Your task to perform on an android device: open chrome and create a bookmark for the current page Image 0: 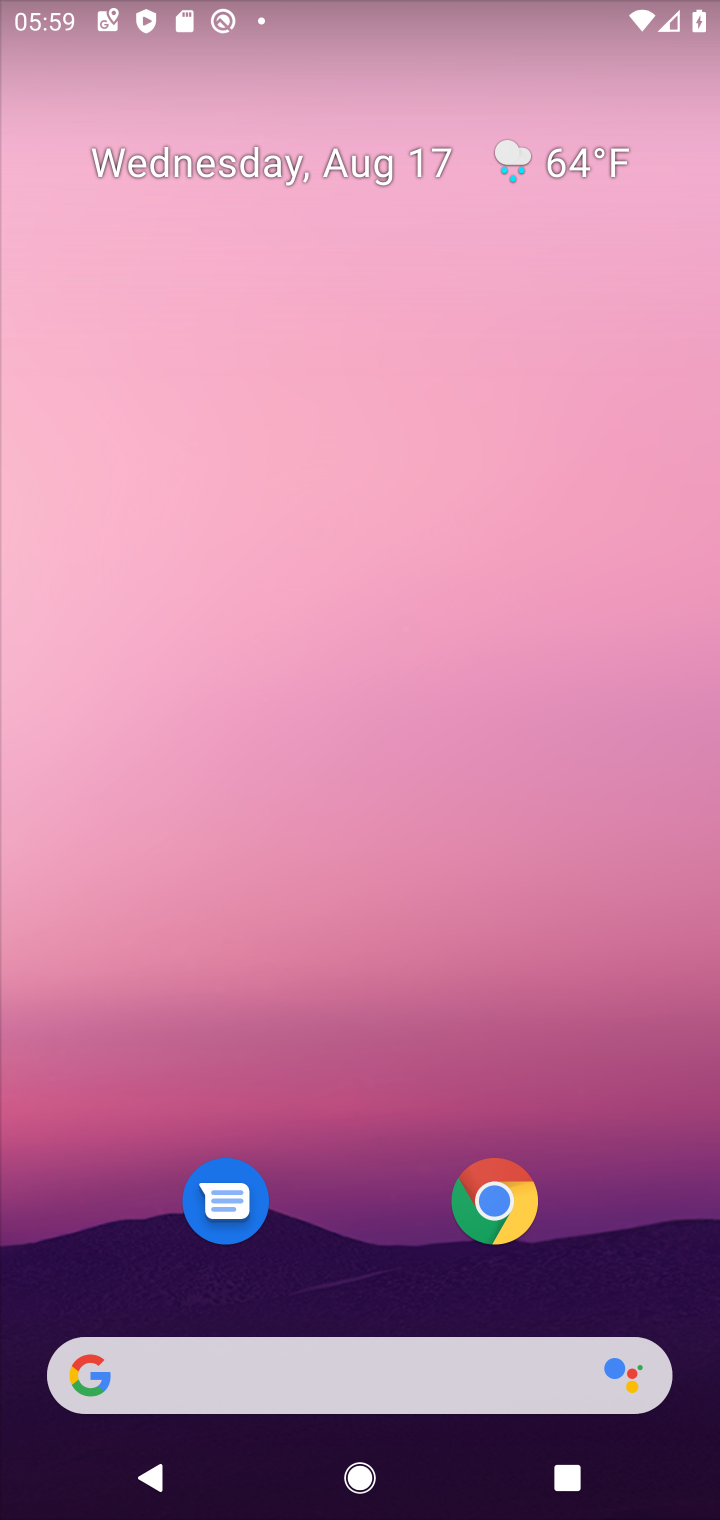
Step 0: press home button
Your task to perform on an android device: open chrome and create a bookmark for the current page Image 1: 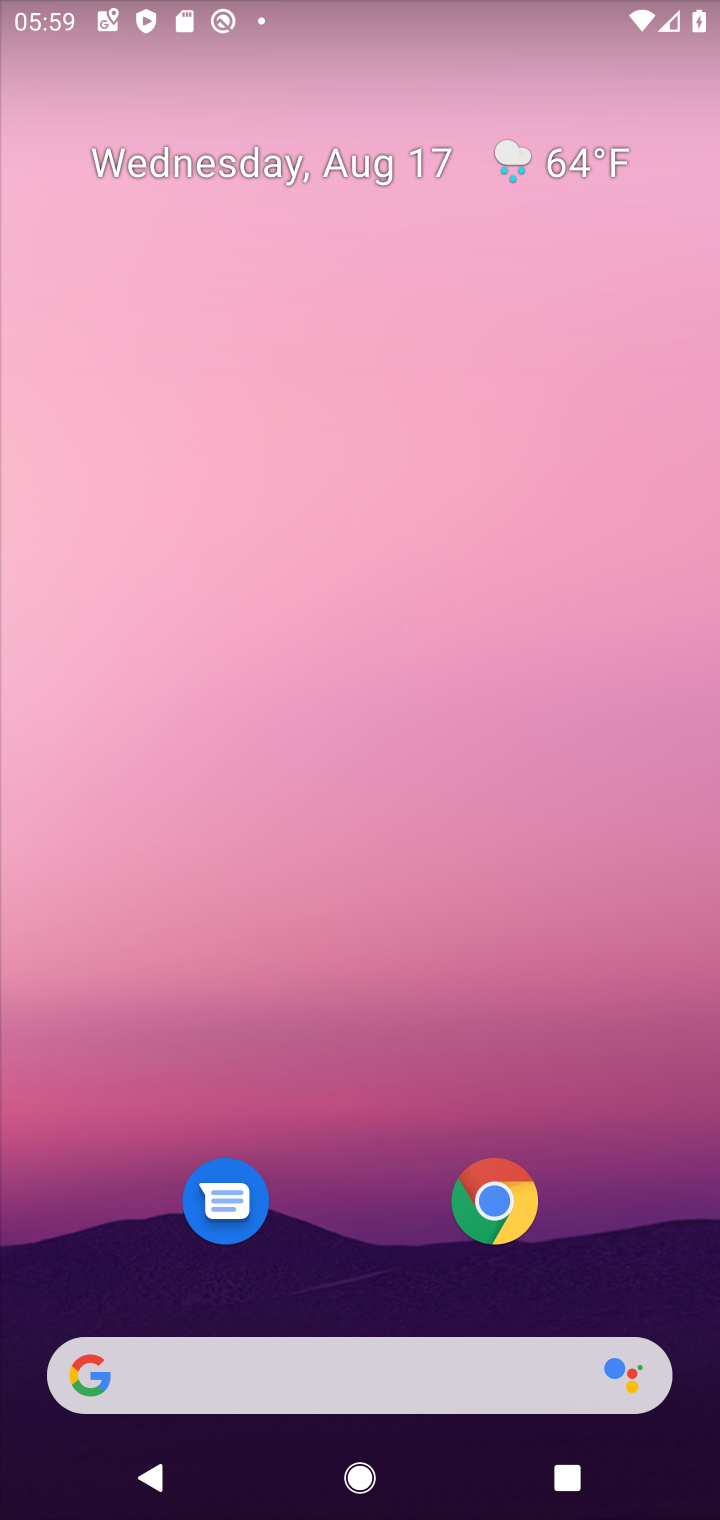
Step 1: click (505, 1219)
Your task to perform on an android device: open chrome and create a bookmark for the current page Image 2: 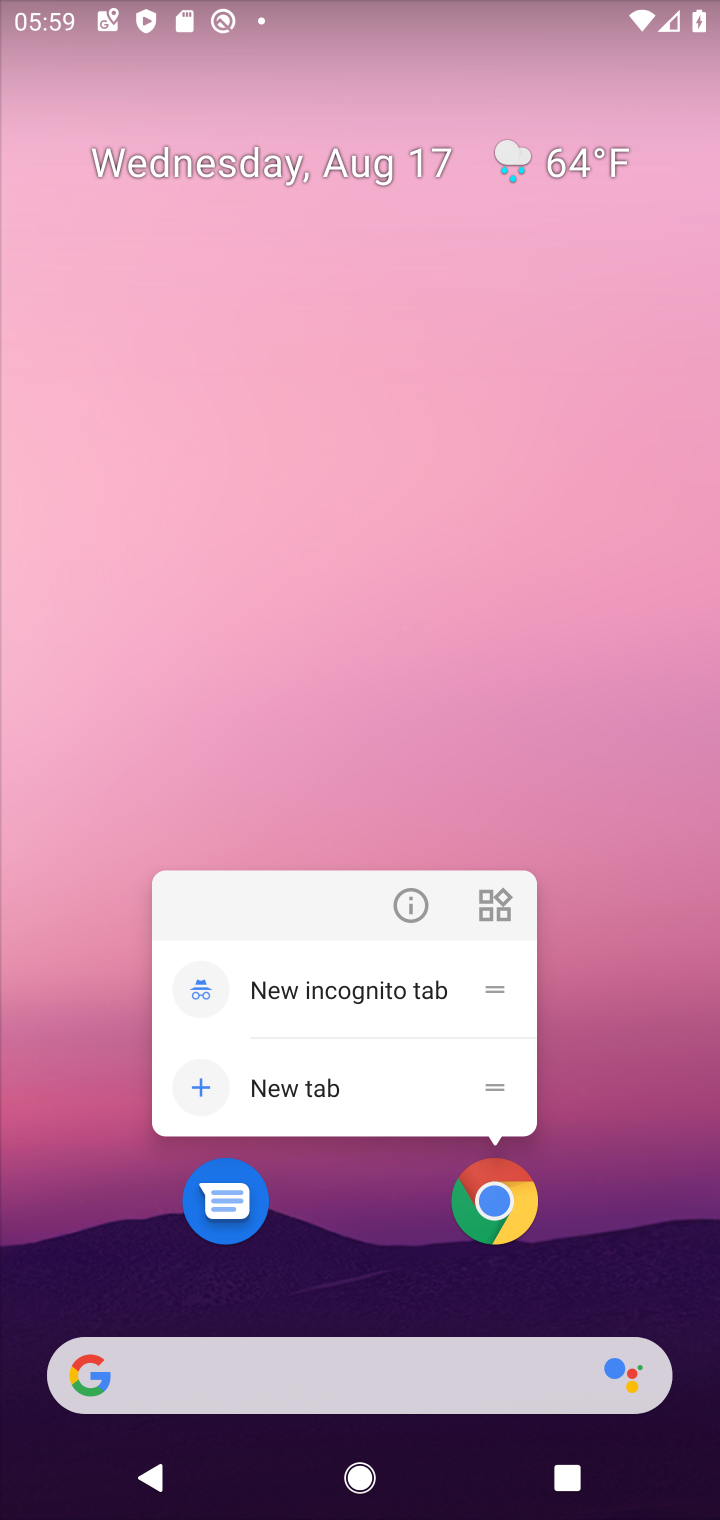
Step 2: click (530, 1216)
Your task to perform on an android device: open chrome and create a bookmark for the current page Image 3: 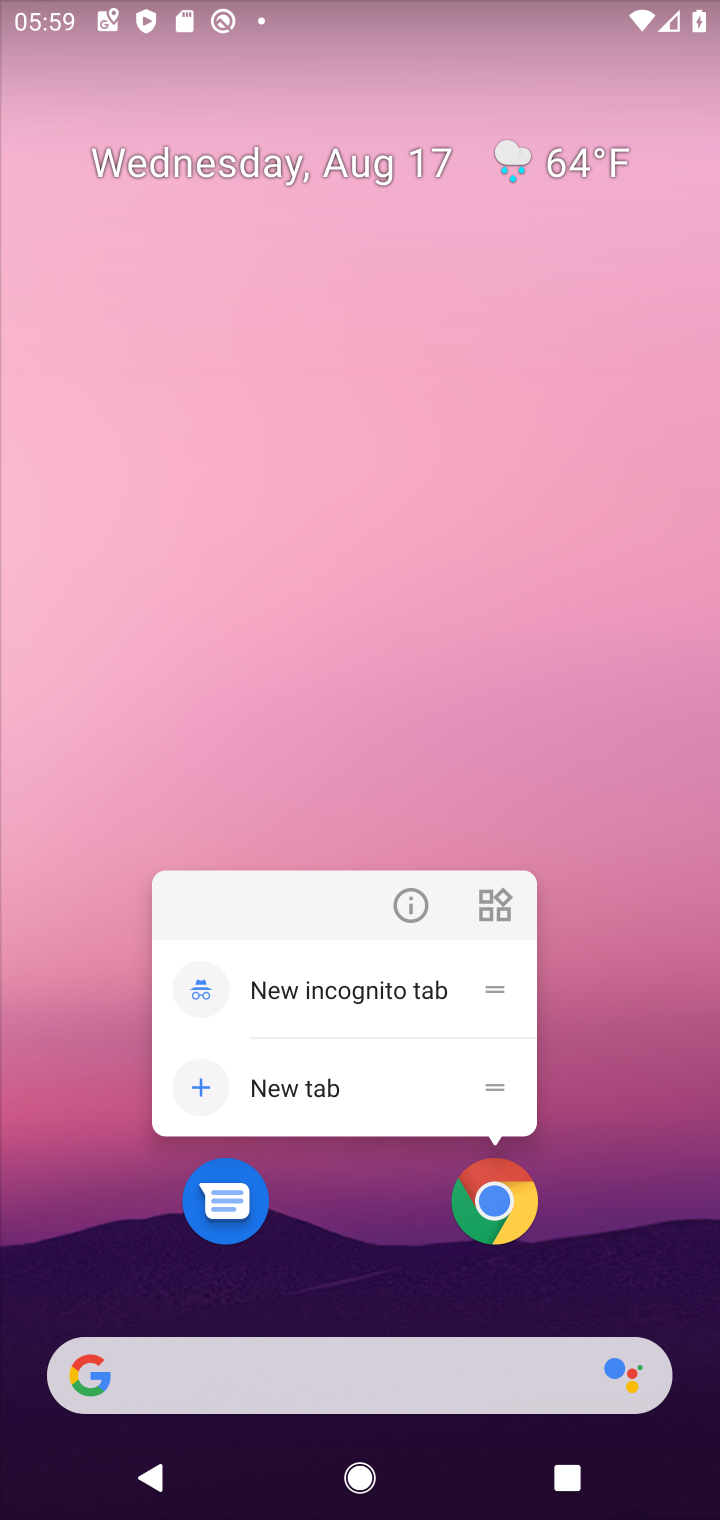
Step 3: click (530, 1216)
Your task to perform on an android device: open chrome and create a bookmark for the current page Image 4: 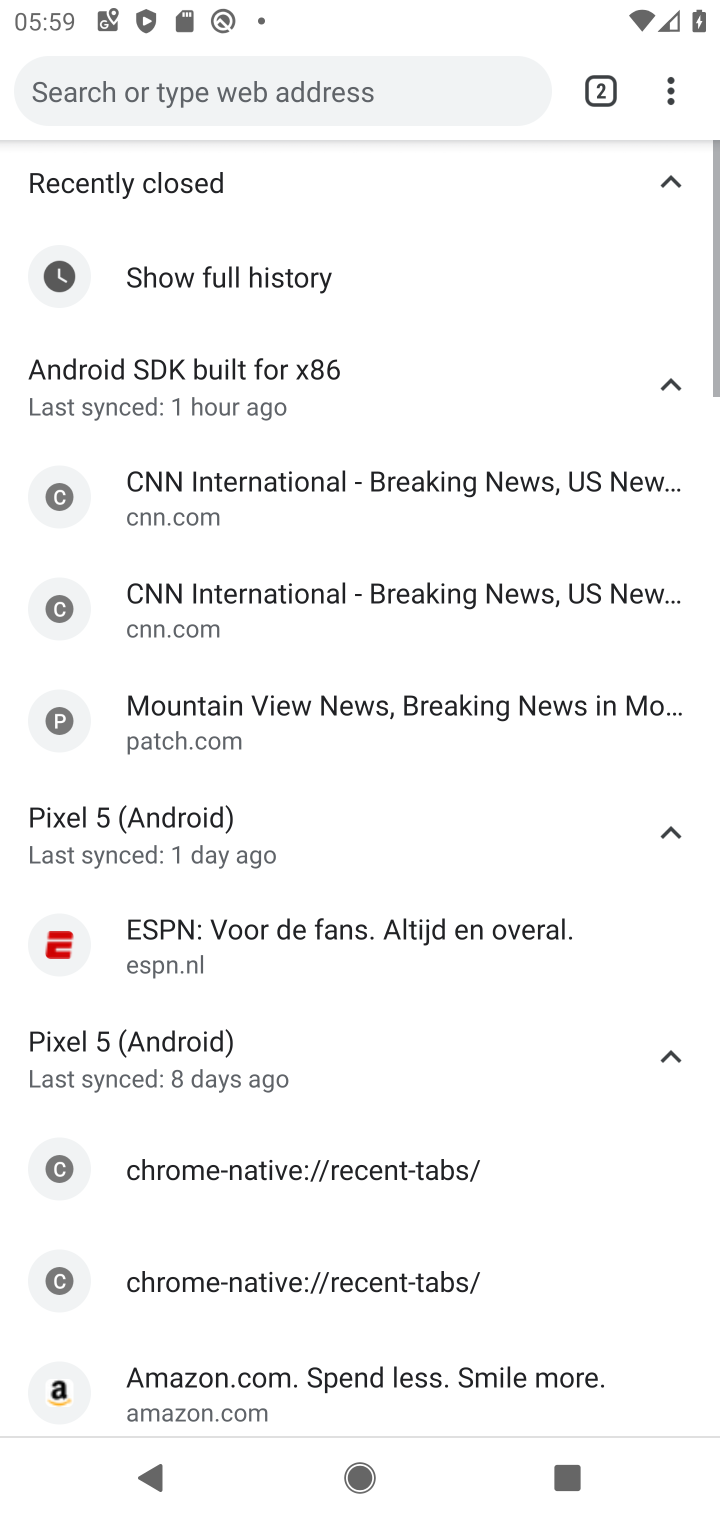
Step 4: task complete